Your task to perform on an android device: visit the assistant section in the google photos Image 0: 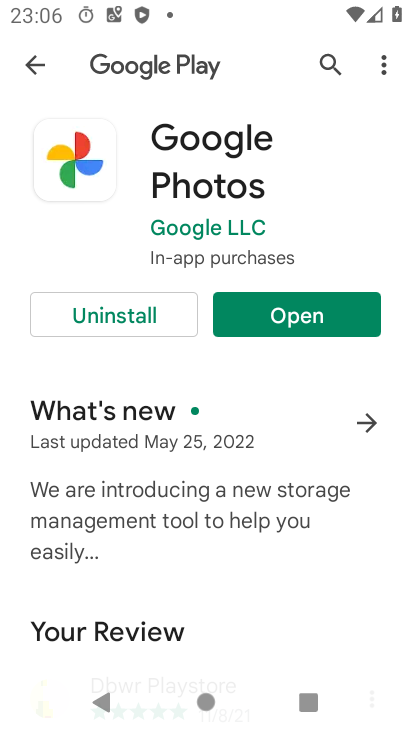
Step 0: drag from (174, 540) to (228, 267)
Your task to perform on an android device: visit the assistant section in the google photos Image 1: 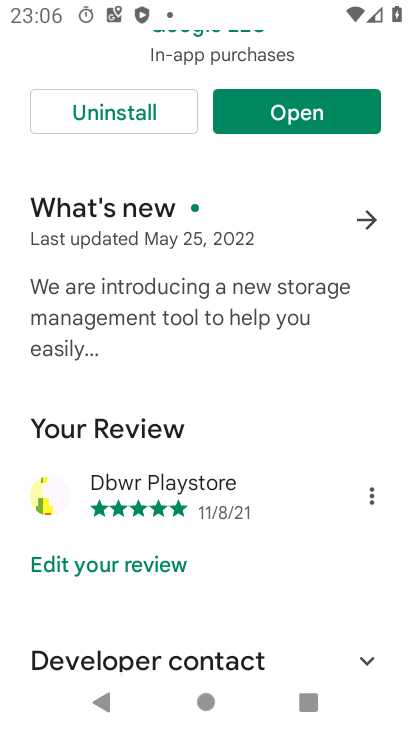
Step 1: drag from (218, 195) to (306, 729)
Your task to perform on an android device: visit the assistant section in the google photos Image 2: 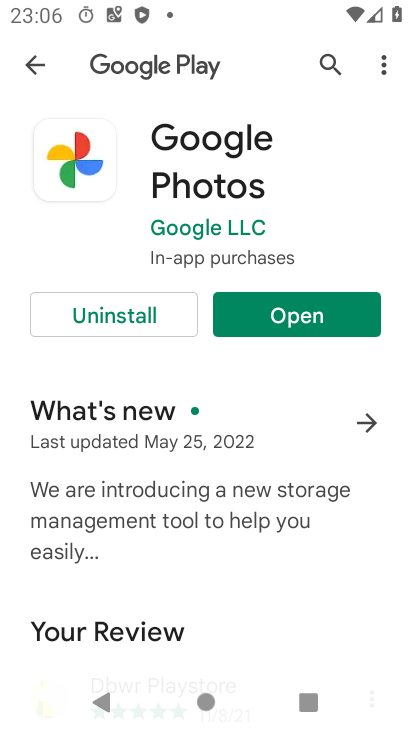
Step 2: click (275, 323)
Your task to perform on an android device: visit the assistant section in the google photos Image 3: 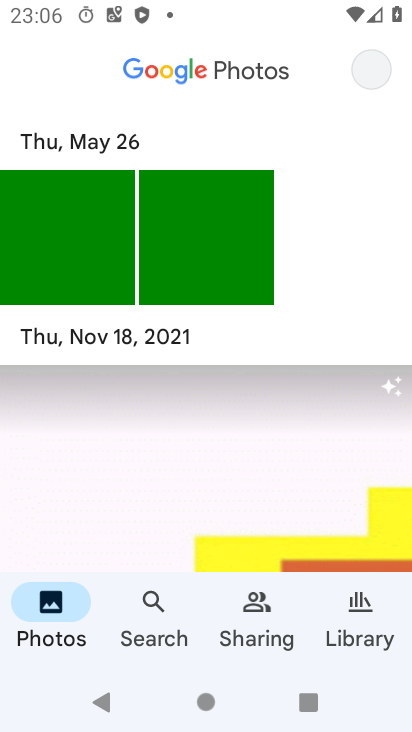
Step 3: drag from (256, 497) to (343, 71)
Your task to perform on an android device: visit the assistant section in the google photos Image 4: 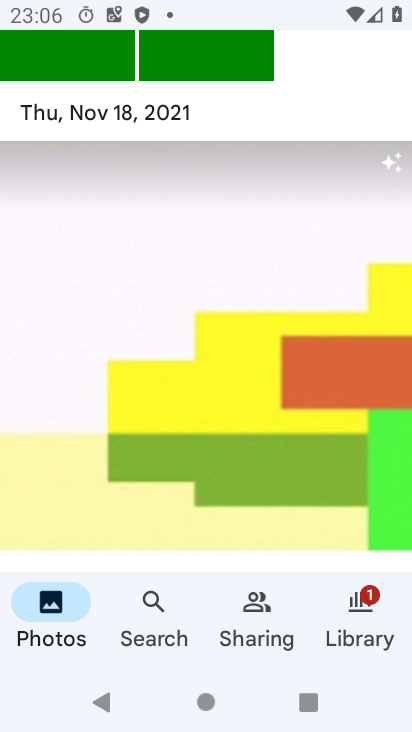
Step 4: click (150, 604)
Your task to perform on an android device: visit the assistant section in the google photos Image 5: 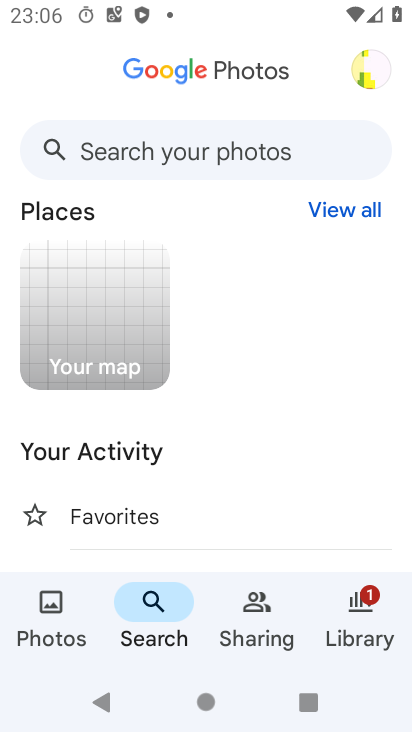
Step 5: click (352, 610)
Your task to perform on an android device: visit the assistant section in the google photos Image 6: 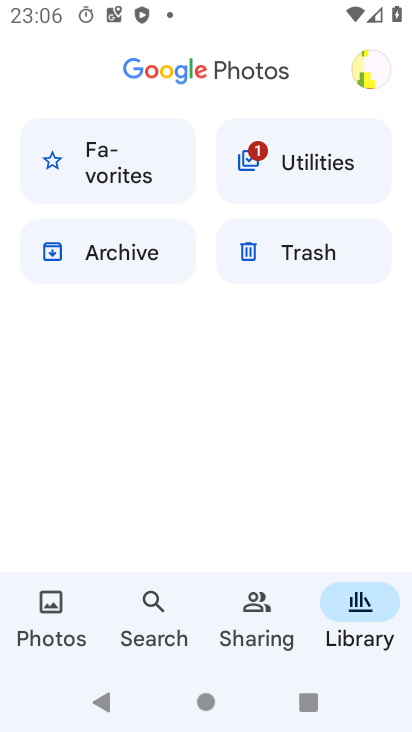
Step 6: task complete